Your task to perform on an android device: uninstall "Venmo" Image 0: 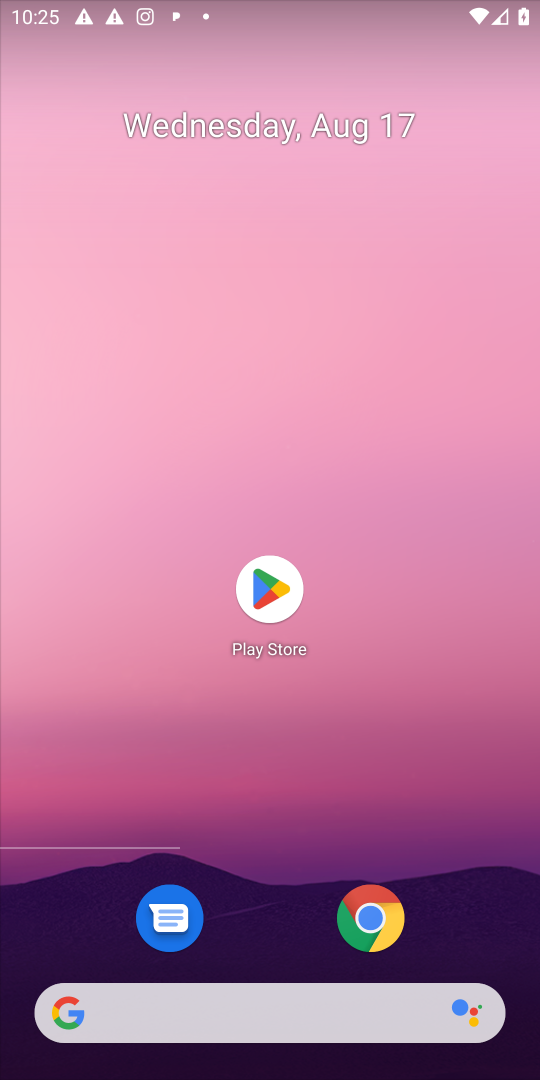
Step 0: press home button
Your task to perform on an android device: uninstall "Venmo" Image 1: 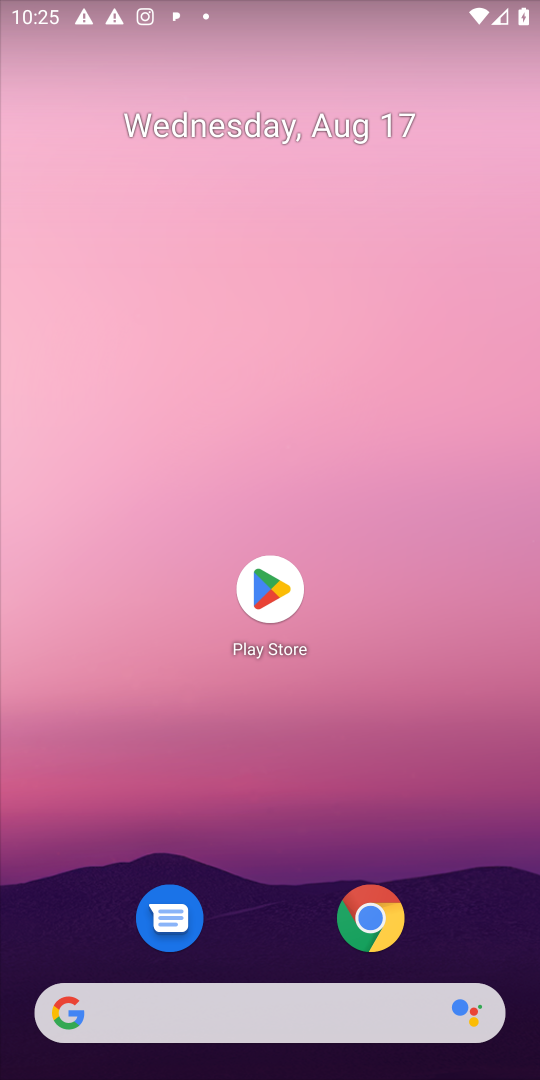
Step 1: click (253, 598)
Your task to perform on an android device: uninstall "Venmo" Image 2: 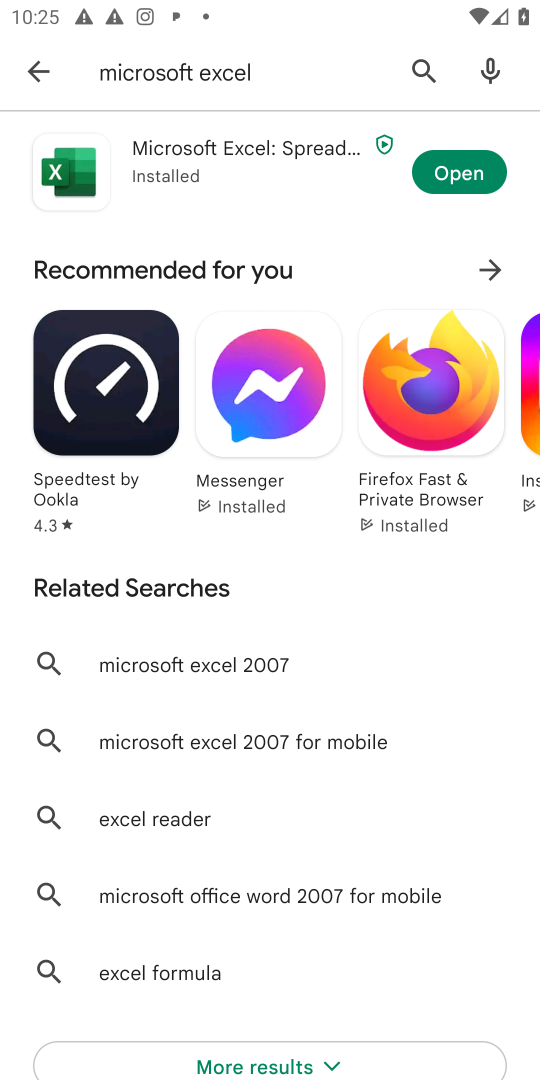
Step 2: click (413, 58)
Your task to perform on an android device: uninstall "Venmo" Image 3: 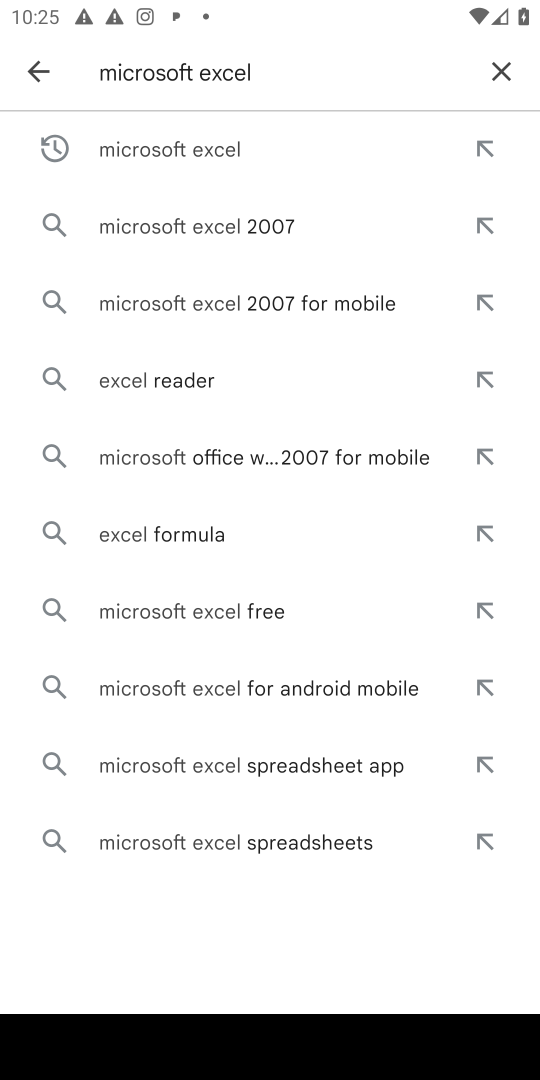
Step 3: click (504, 64)
Your task to perform on an android device: uninstall "Venmo" Image 4: 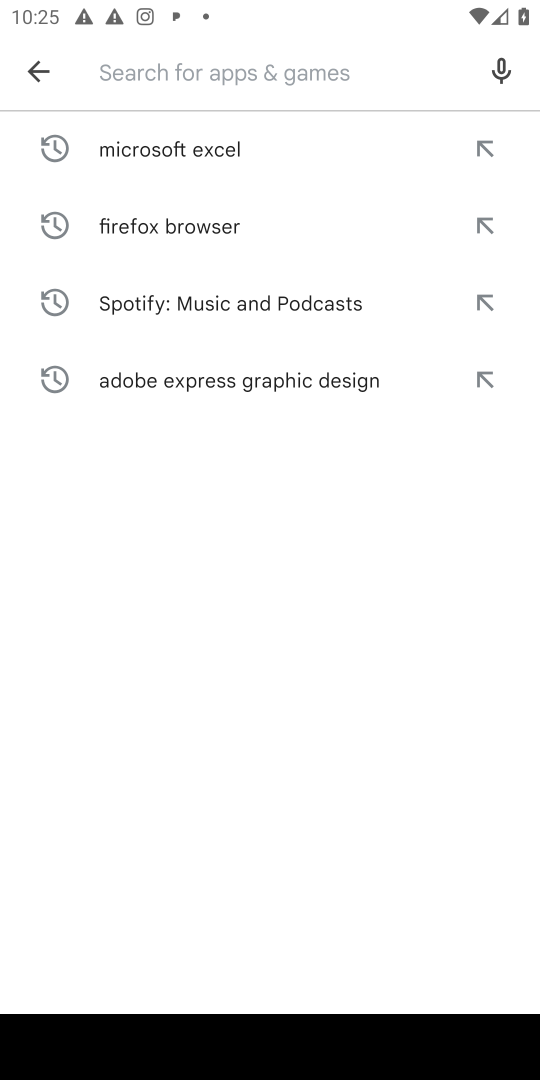
Step 4: type "Venmo"
Your task to perform on an android device: uninstall "Venmo" Image 5: 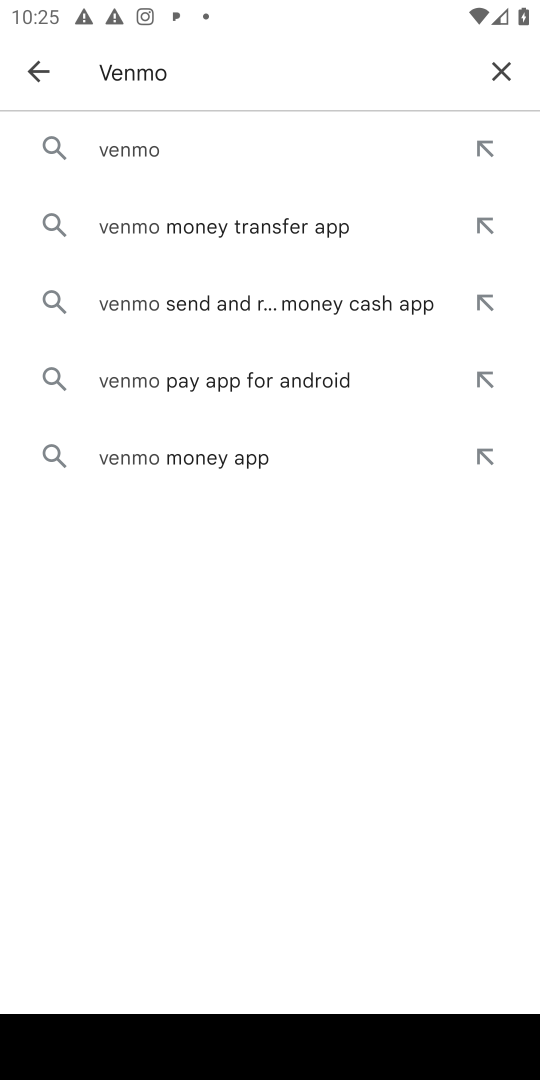
Step 5: click (112, 150)
Your task to perform on an android device: uninstall "Venmo" Image 6: 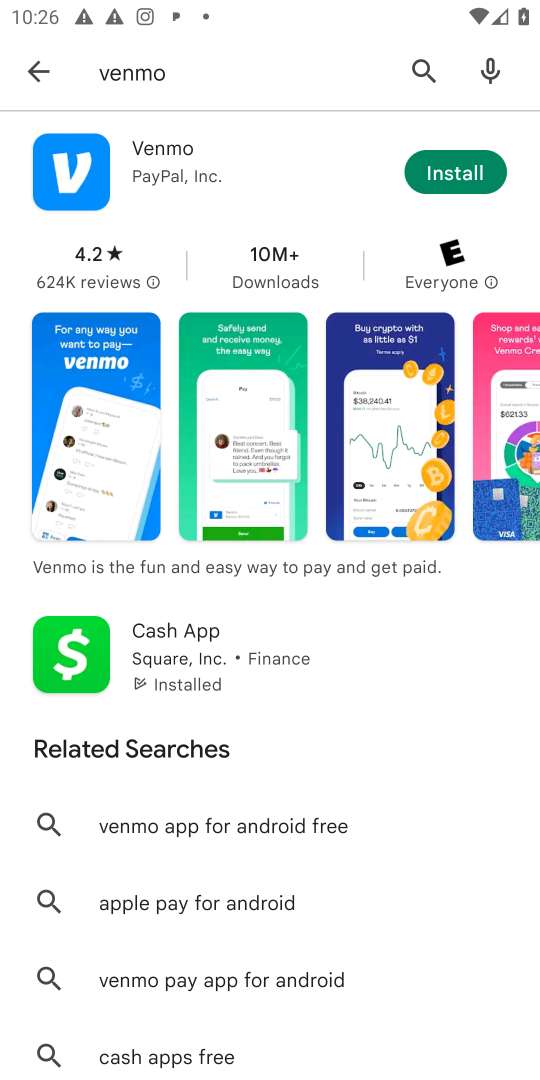
Step 6: task complete